Your task to perform on an android device: turn off improve location accuracy Image 0: 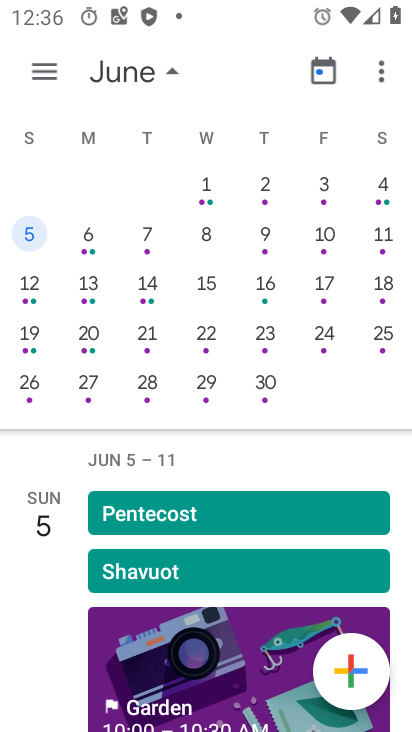
Step 0: press home button
Your task to perform on an android device: turn off improve location accuracy Image 1: 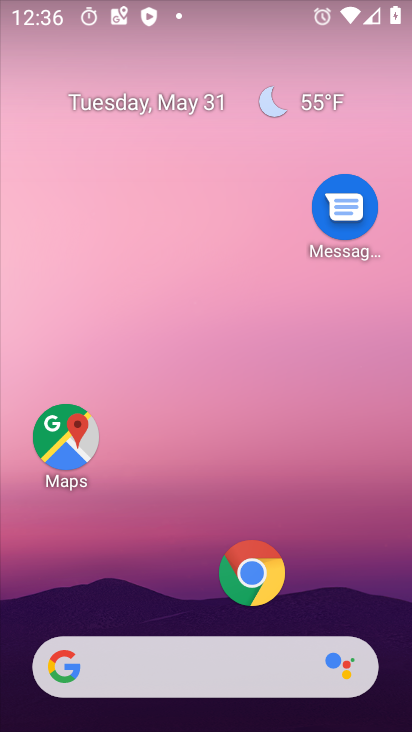
Step 1: drag from (185, 577) to (244, 95)
Your task to perform on an android device: turn off improve location accuracy Image 2: 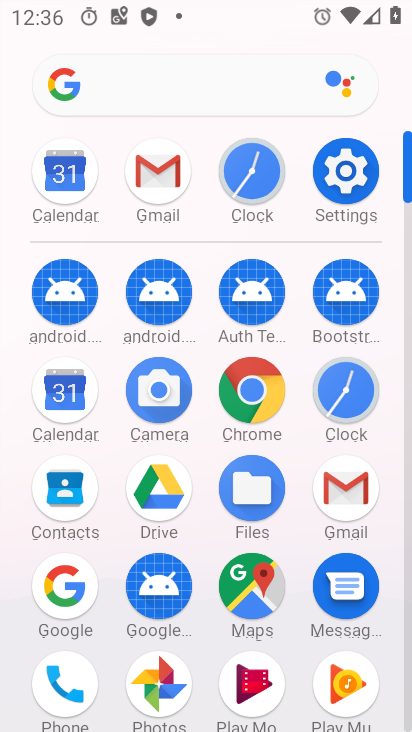
Step 2: click (332, 173)
Your task to perform on an android device: turn off improve location accuracy Image 3: 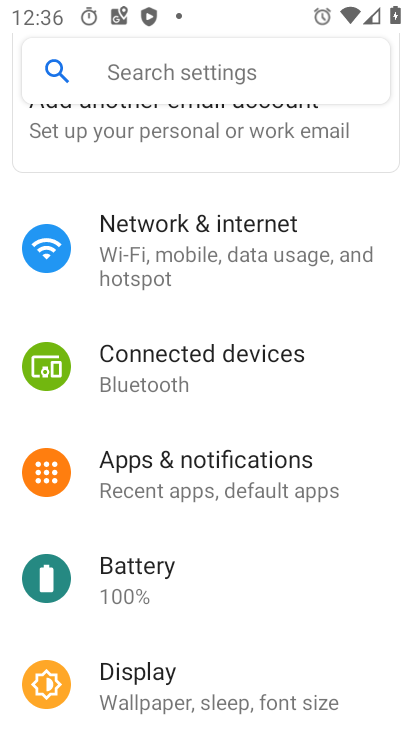
Step 3: drag from (184, 617) to (245, 28)
Your task to perform on an android device: turn off improve location accuracy Image 4: 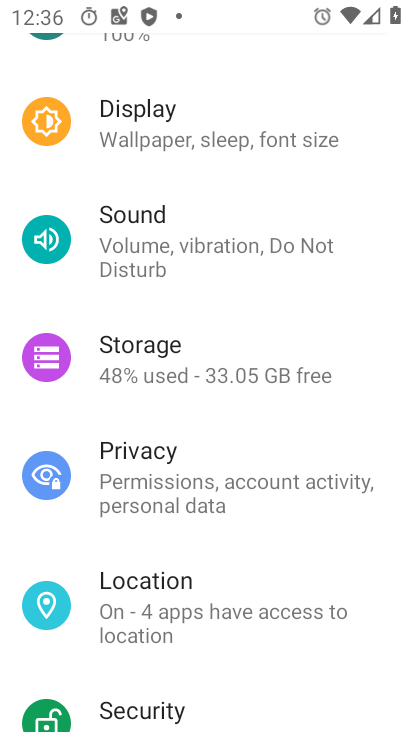
Step 4: click (156, 578)
Your task to perform on an android device: turn off improve location accuracy Image 5: 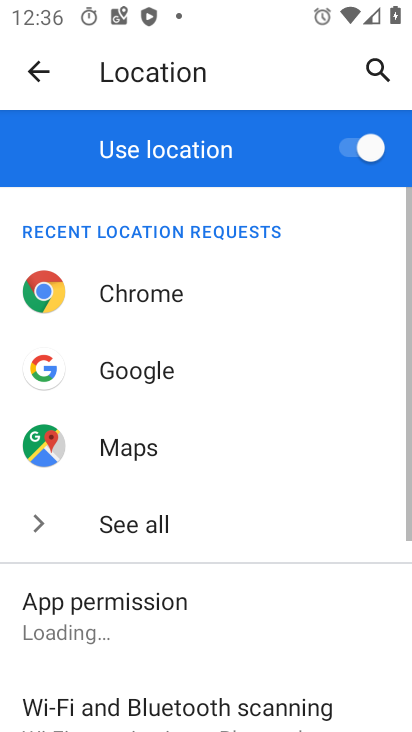
Step 5: drag from (182, 642) to (281, 121)
Your task to perform on an android device: turn off improve location accuracy Image 6: 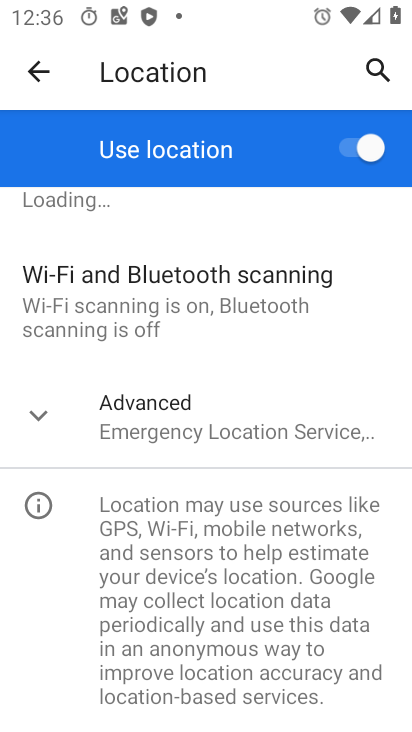
Step 6: click (185, 427)
Your task to perform on an android device: turn off improve location accuracy Image 7: 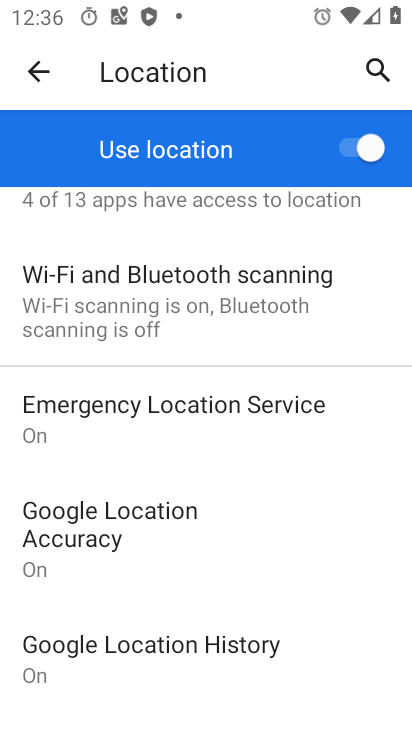
Step 7: click (118, 551)
Your task to perform on an android device: turn off improve location accuracy Image 8: 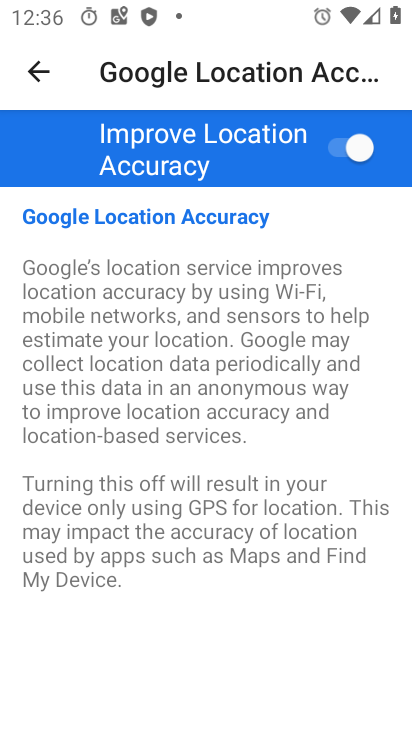
Step 8: click (348, 148)
Your task to perform on an android device: turn off improve location accuracy Image 9: 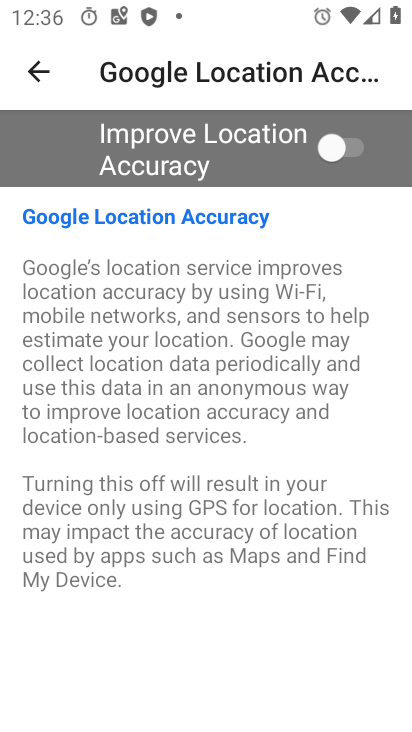
Step 9: task complete